Your task to perform on an android device: Open Yahoo.com Image 0: 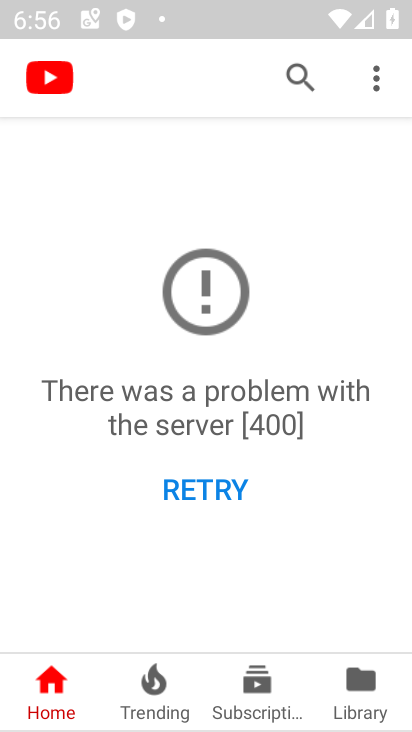
Step 0: press home button
Your task to perform on an android device: Open Yahoo.com Image 1: 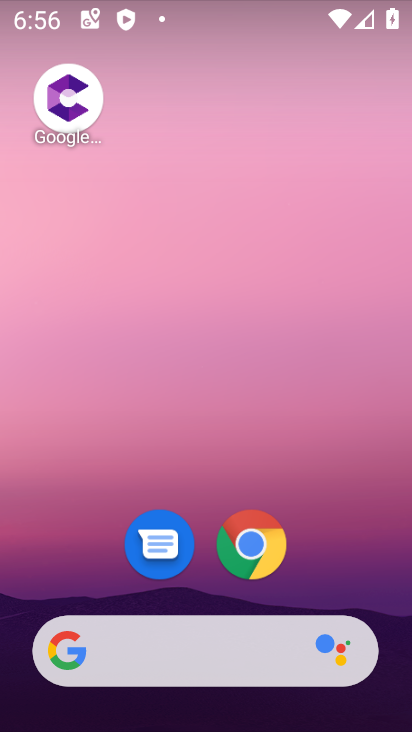
Step 1: click (255, 543)
Your task to perform on an android device: Open Yahoo.com Image 2: 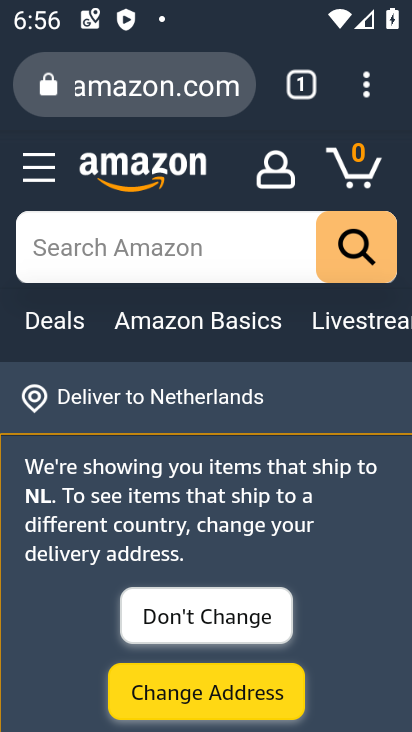
Step 2: click (370, 97)
Your task to perform on an android device: Open Yahoo.com Image 3: 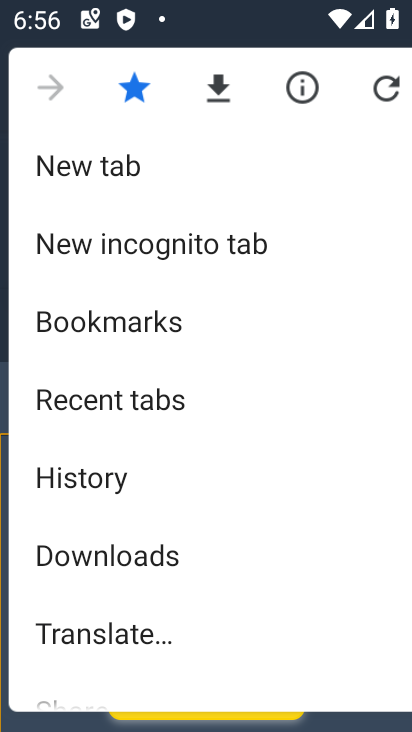
Step 3: click (80, 181)
Your task to perform on an android device: Open Yahoo.com Image 4: 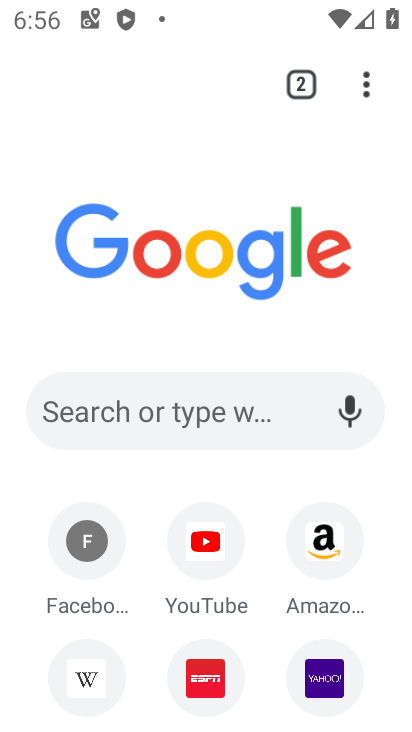
Step 4: click (326, 666)
Your task to perform on an android device: Open Yahoo.com Image 5: 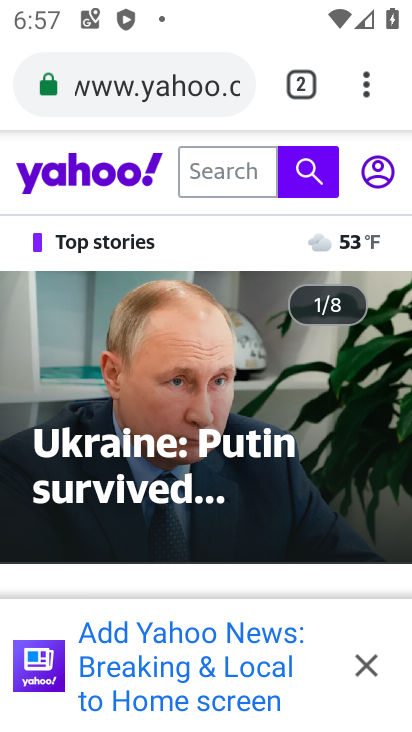
Step 5: task complete